Your task to perform on an android device: Search for flights from London to Paris Image 0: 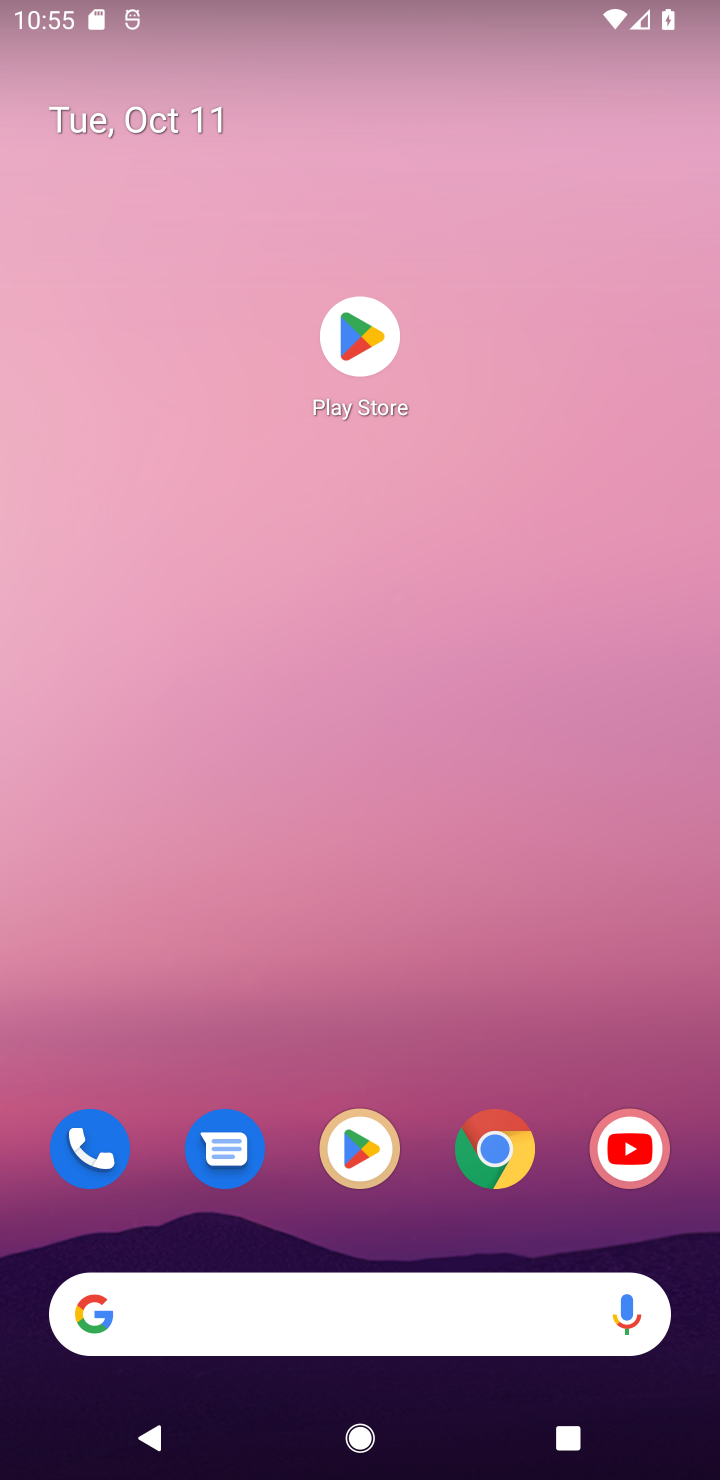
Step 0: drag from (368, 482) to (368, 264)
Your task to perform on an android device: Search for flights from London to Paris Image 1: 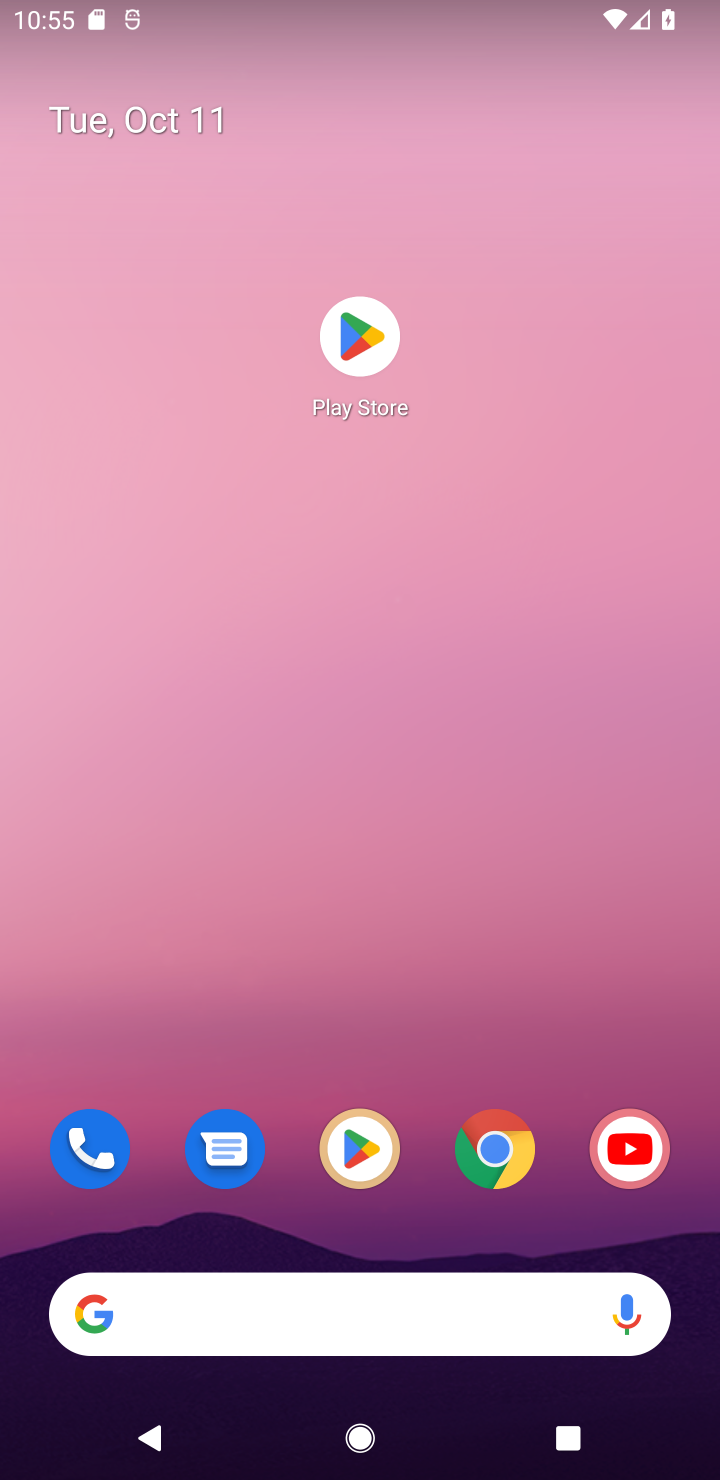
Step 1: click (362, 1315)
Your task to perform on an android device: Search for flights from London to Paris Image 2: 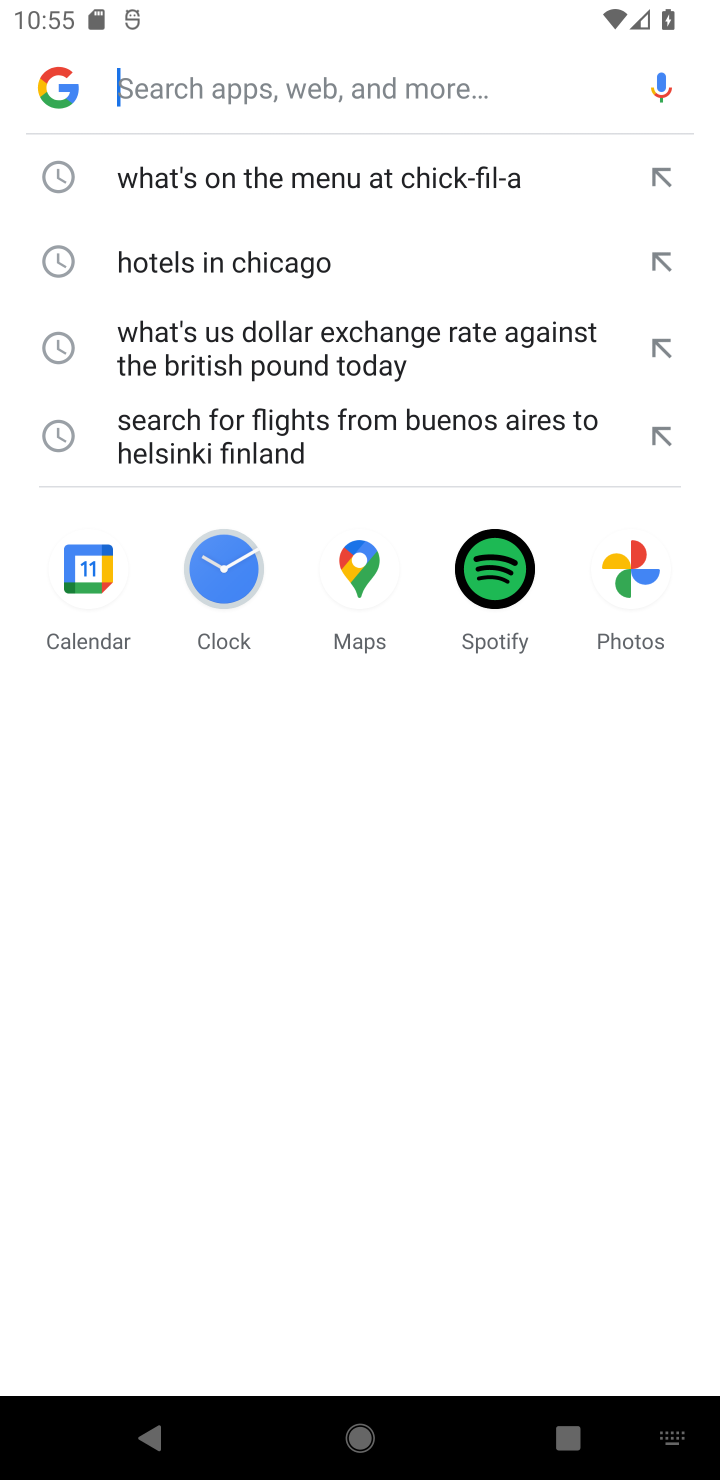
Step 2: type "Search for flights from London to Paris"
Your task to perform on an android device: Search for flights from London to Paris Image 3: 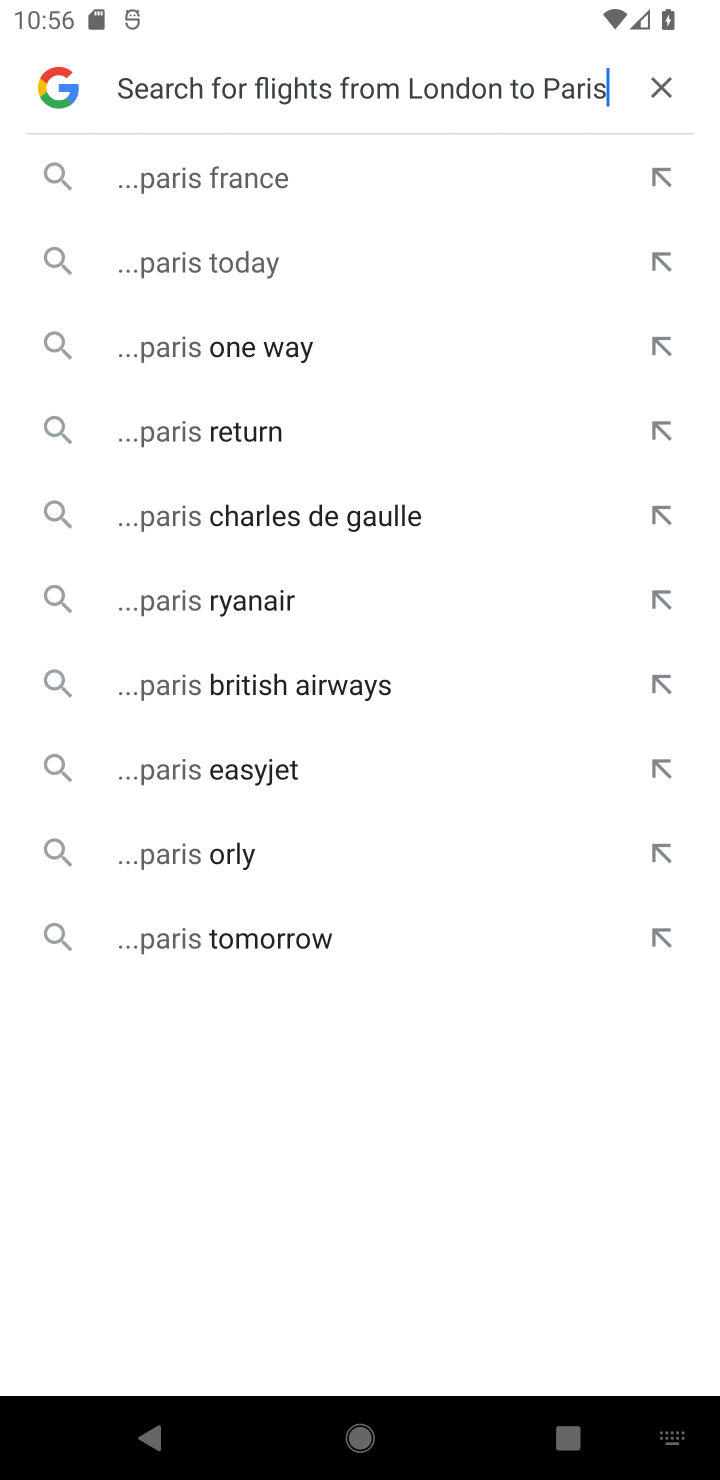
Step 3: click (239, 173)
Your task to perform on an android device: Search for flights from London to Paris Image 4: 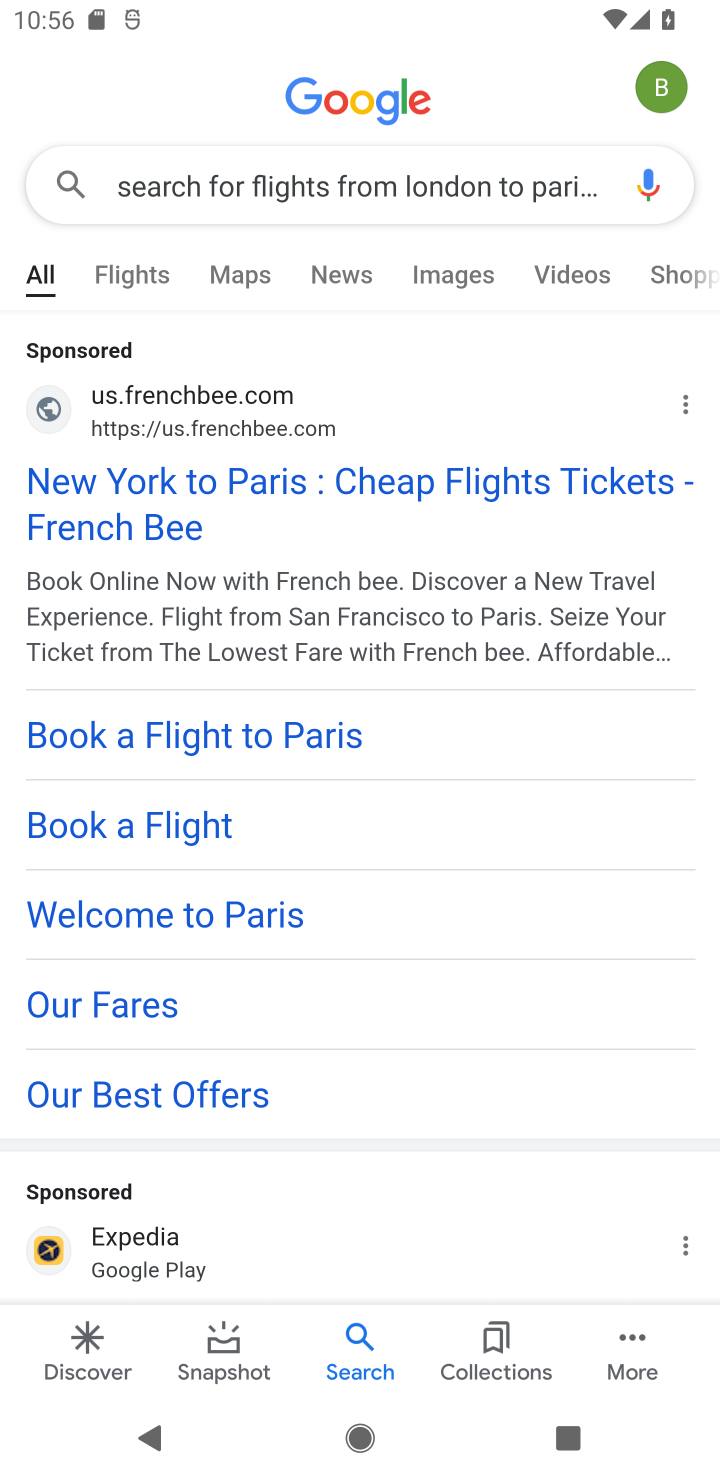
Step 4: click (369, 1175)
Your task to perform on an android device: Search for flights from London to Paris Image 5: 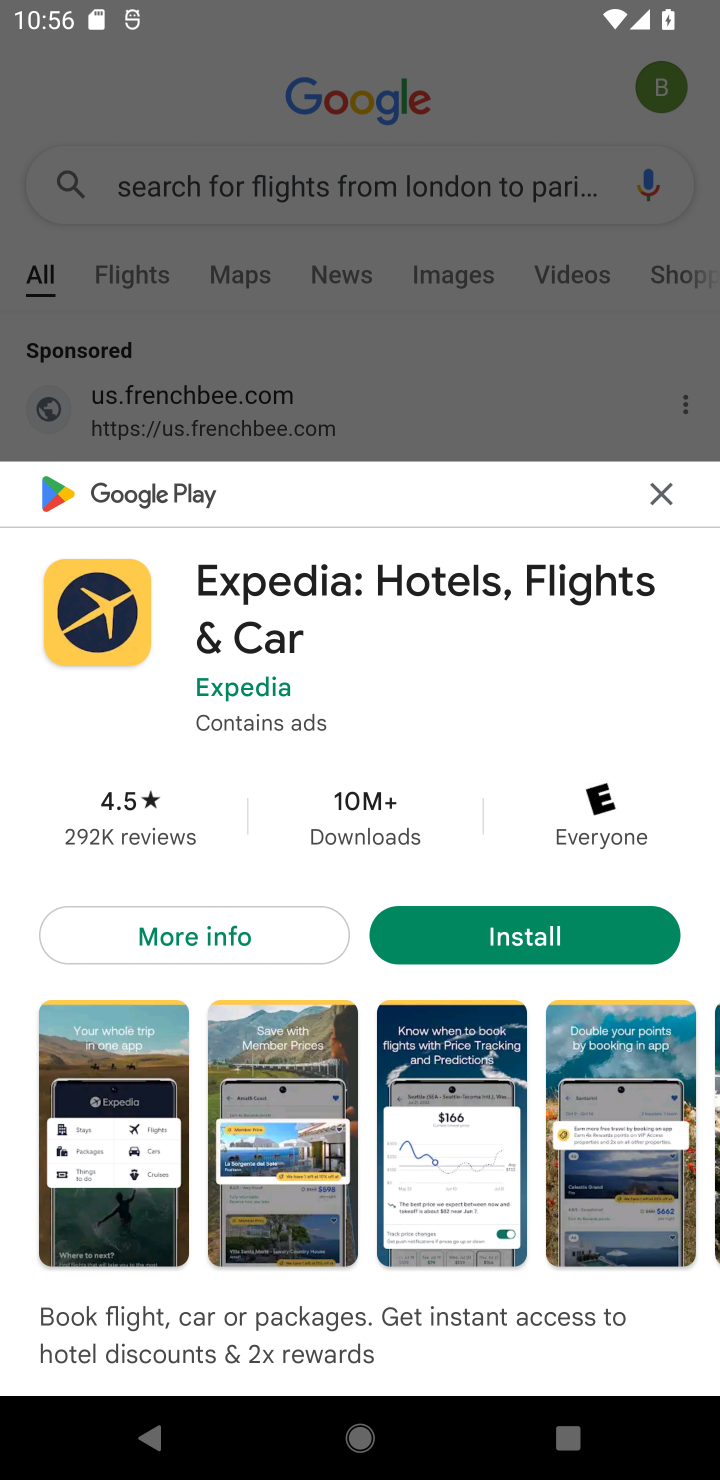
Step 5: click (653, 479)
Your task to perform on an android device: Search for flights from London to Paris Image 6: 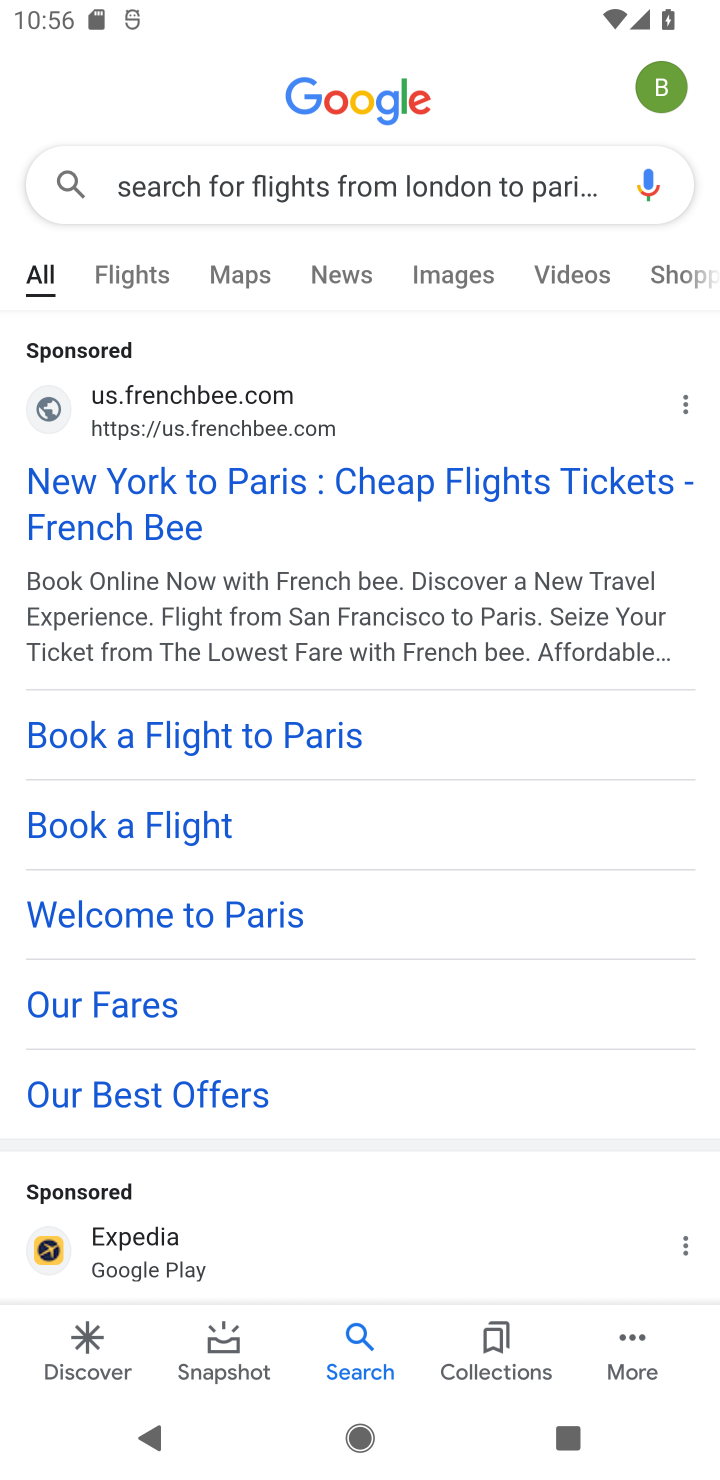
Step 6: task complete